Your task to perform on an android device: delete browsing data in the chrome app Image 0: 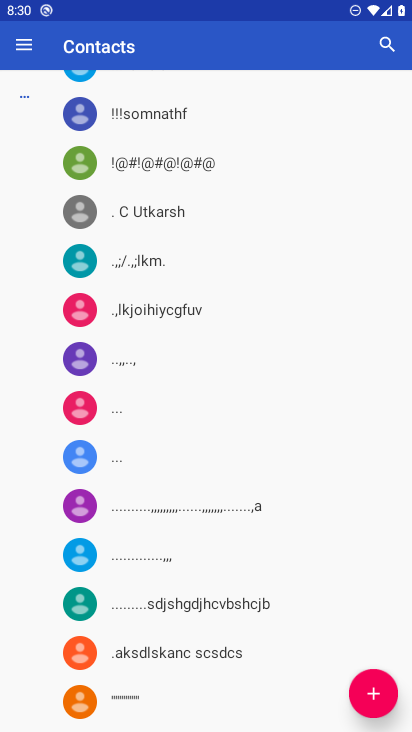
Step 0: press home button
Your task to perform on an android device: delete browsing data in the chrome app Image 1: 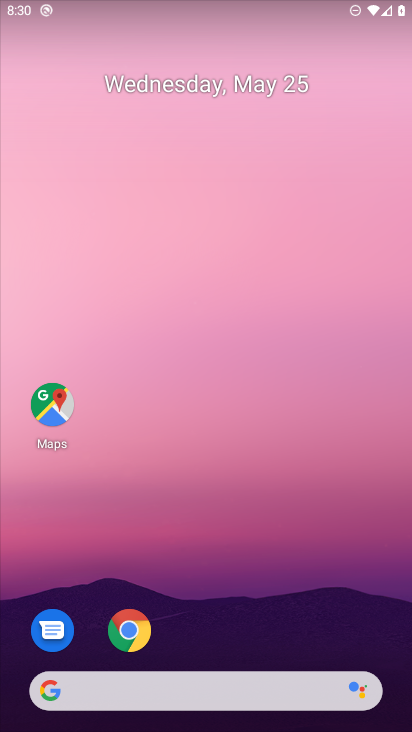
Step 1: click (150, 627)
Your task to perform on an android device: delete browsing data in the chrome app Image 2: 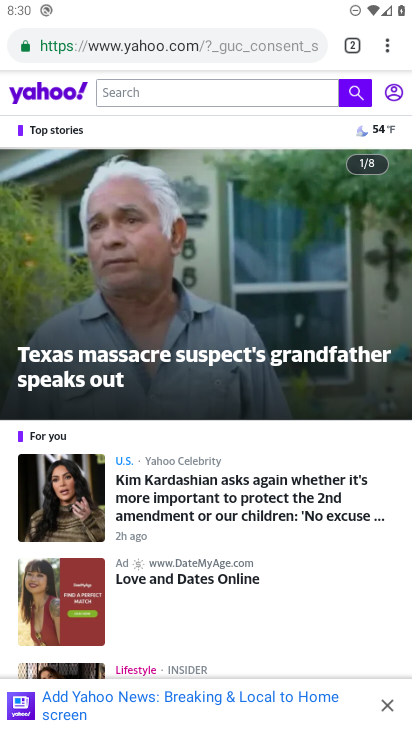
Step 2: click (384, 40)
Your task to perform on an android device: delete browsing data in the chrome app Image 3: 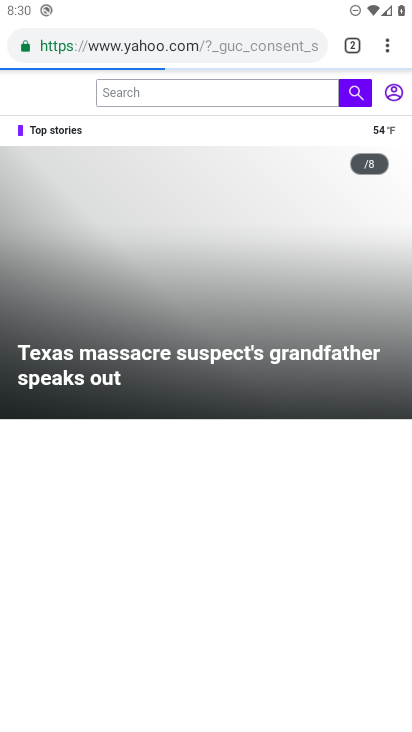
Step 3: click (407, 33)
Your task to perform on an android device: delete browsing data in the chrome app Image 4: 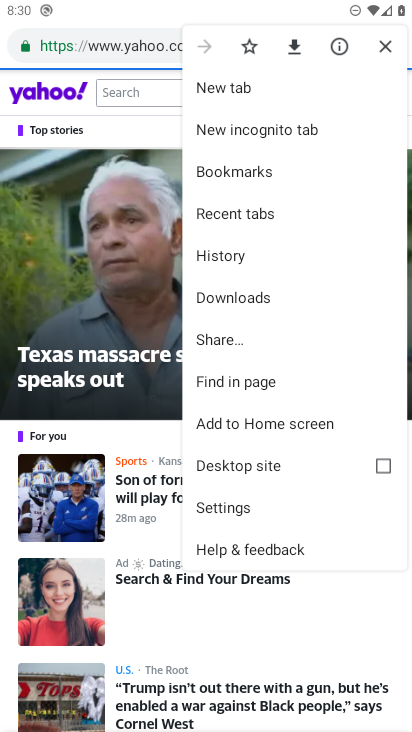
Step 4: click (238, 251)
Your task to perform on an android device: delete browsing data in the chrome app Image 5: 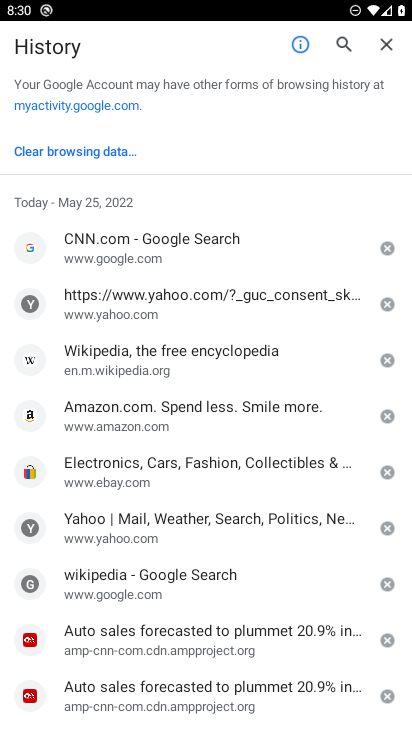
Step 5: click (123, 149)
Your task to perform on an android device: delete browsing data in the chrome app Image 6: 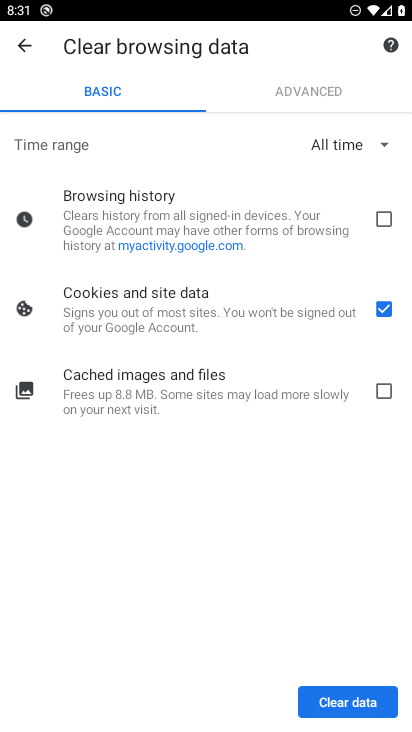
Step 6: click (391, 383)
Your task to perform on an android device: delete browsing data in the chrome app Image 7: 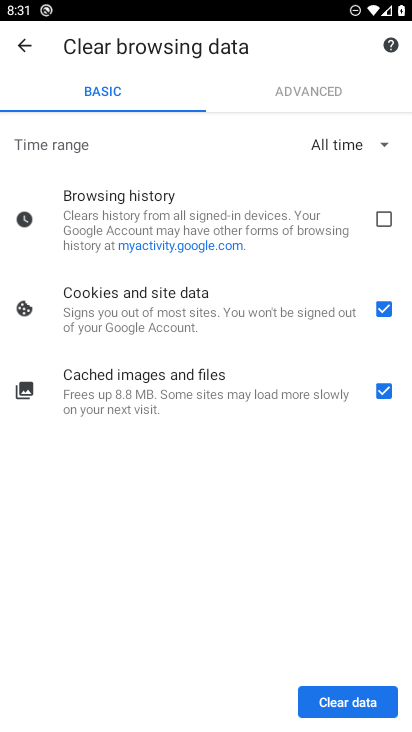
Step 7: click (381, 212)
Your task to perform on an android device: delete browsing data in the chrome app Image 8: 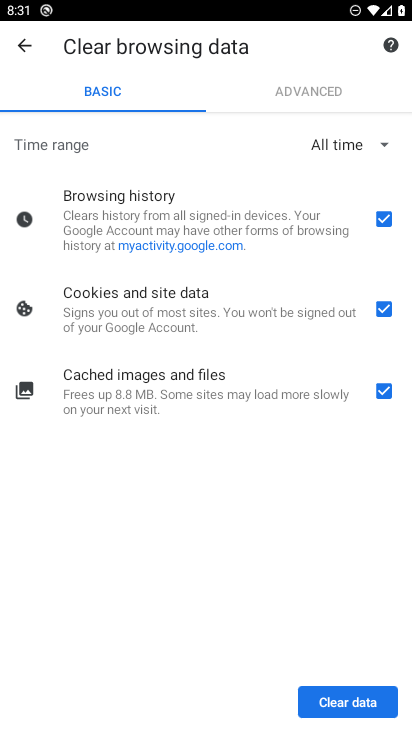
Step 8: click (365, 701)
Your task to perform on an android device: delete browsing data in the chrome app Image 9: 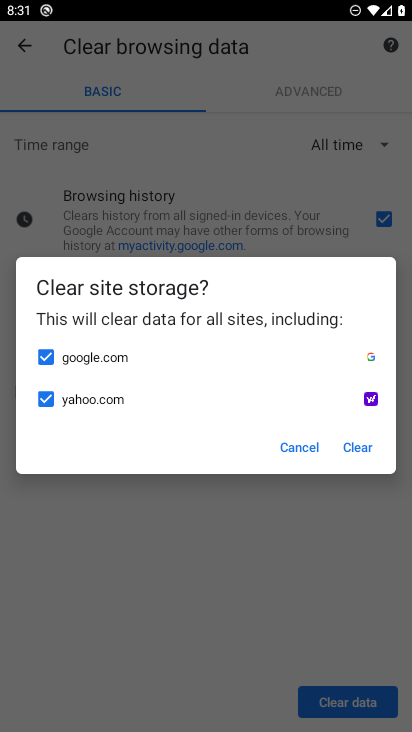
Step 9: click (359, 434)
Your task to perform on an android device: delete browsing data in the chrome app Image 10: 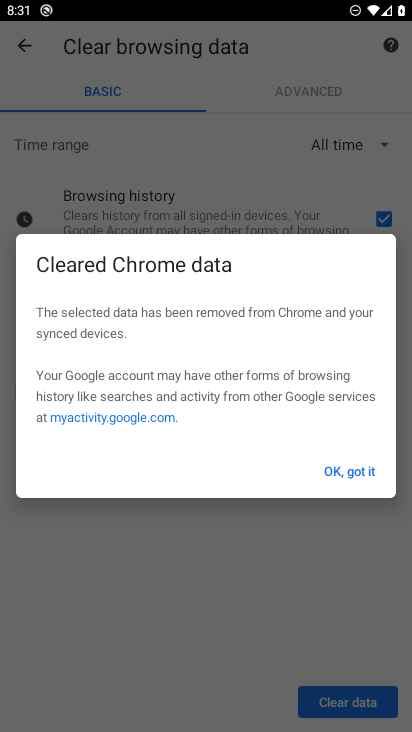
Step 10: click (360, 476)
Your task to perform on an android device: delete browsing data in the chrome app Image 11: 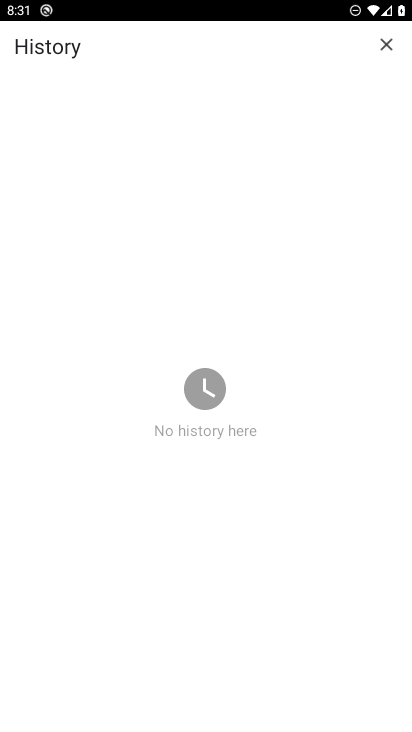
Step 11: task complete